Your task to perform on an android device: Open Google Chrome and open the bookmarks view Image 0: 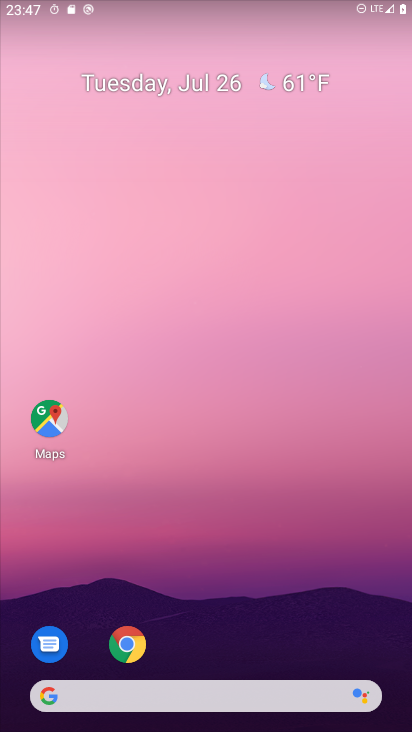
Step 0: click (118, 653)
Your task to perform on an android device: Open Google Chrome and open the bookmarks view Image 1: 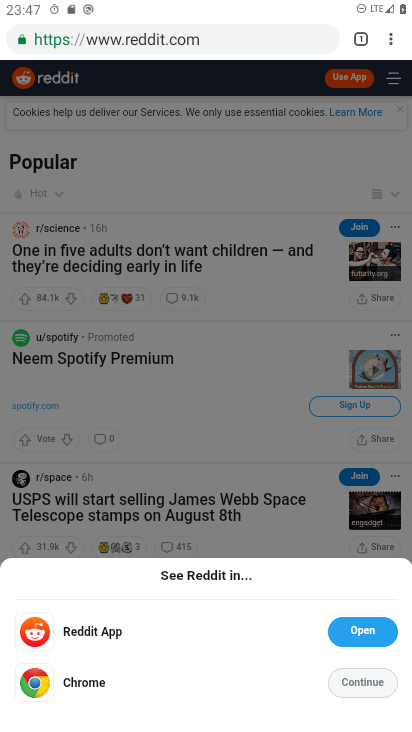
Step 1: task complete